Your task to perform on an android device: Search for "usb-a to usb-b" on newegg, select the first entry, add it to the cart, then select checkout. Image 0: 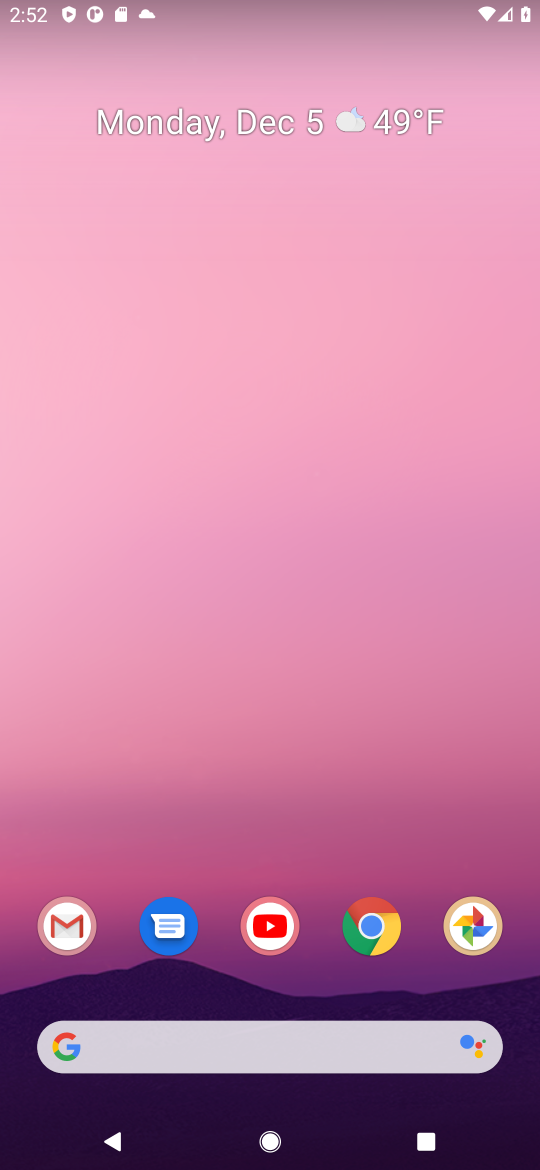
Step 0: click (358, 929)
Your task to perform on an android device: Search for "usb-a to usb-b" on newegg, select the first entry, add it to the cart, then select checkout. Image 1: 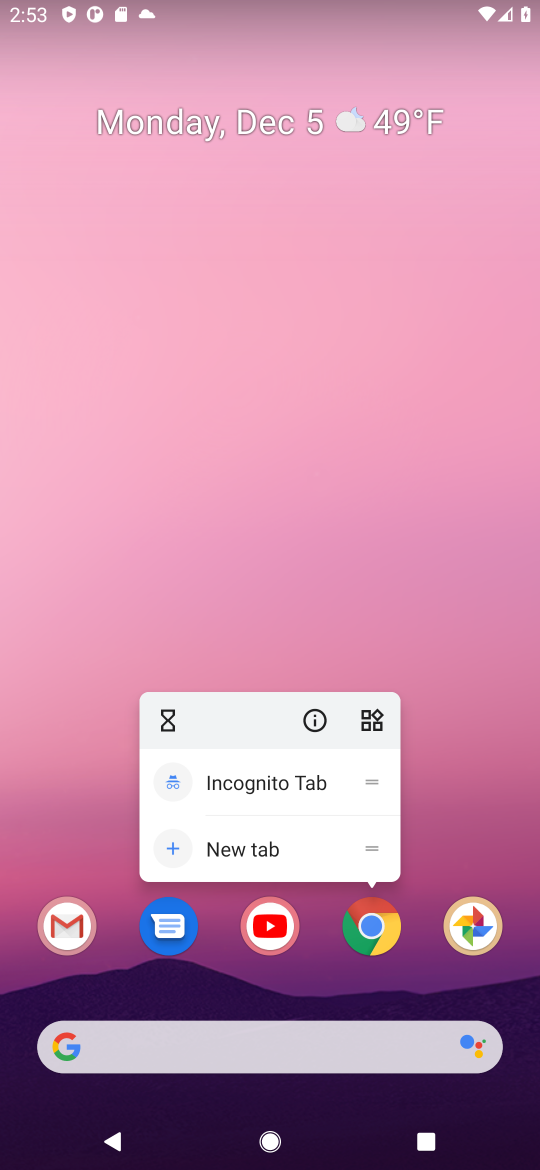
Step 1: click (390, 926)
Your task to perform on an android device: Search for "usb-a to usb-b" on newegg, select the first entry, add it to the cart, then select checkout. Image 2: 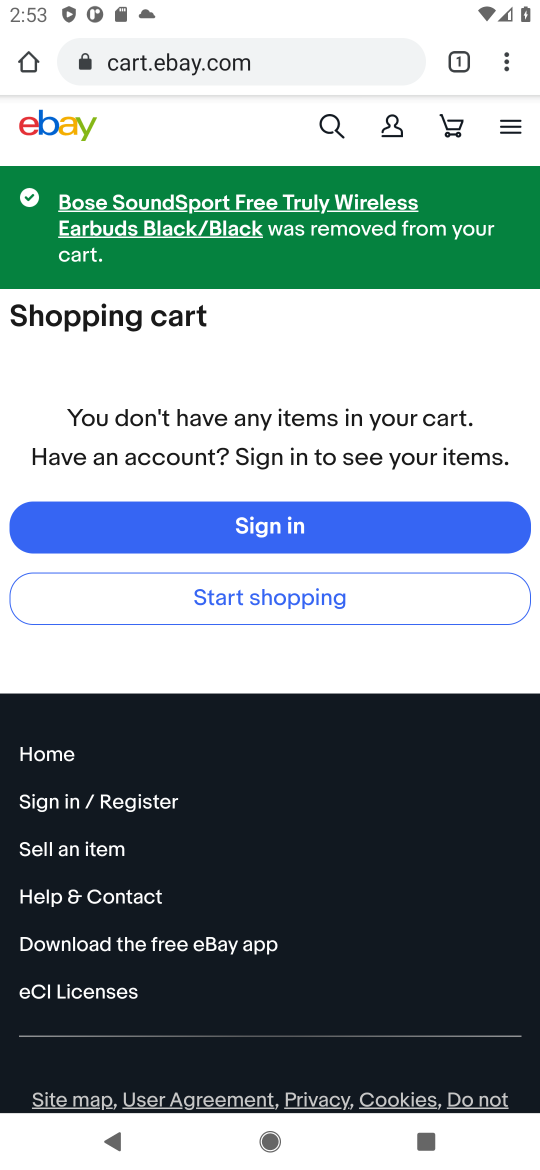
Step 2: click (300, 56)
Your task to perform on an android device: Search for "usb-a to usb-b" on newegg, select the first entry, add it to the cart, then select checkout. Image 3: 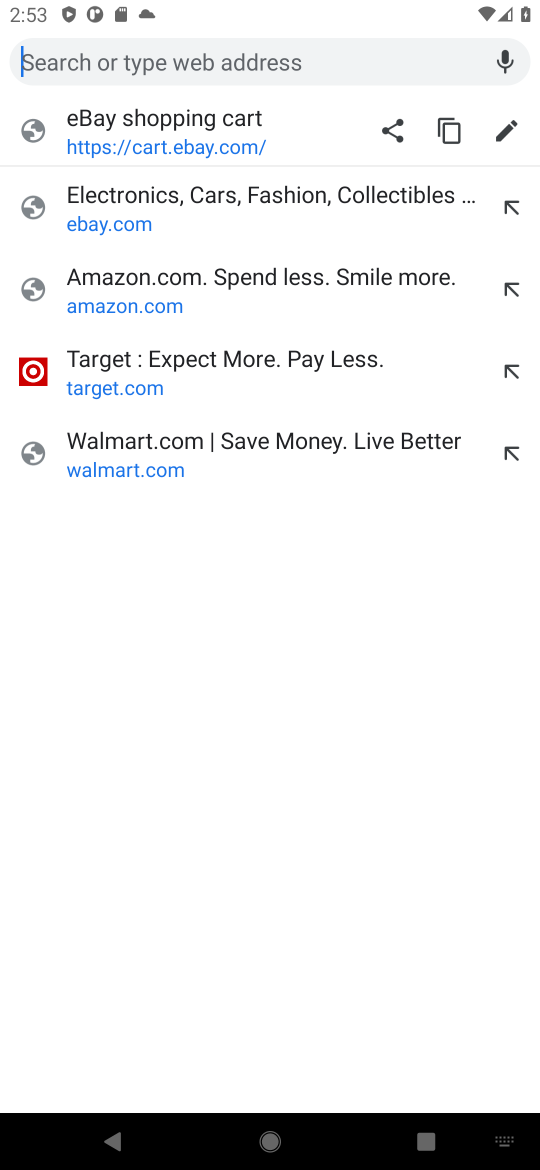
Step 3: type "newegg"
Your task to perform on an android device: Search for "usb-a to usb-b" on newegg, select the first entry, add it to the cart, then select checkout. Image 4: 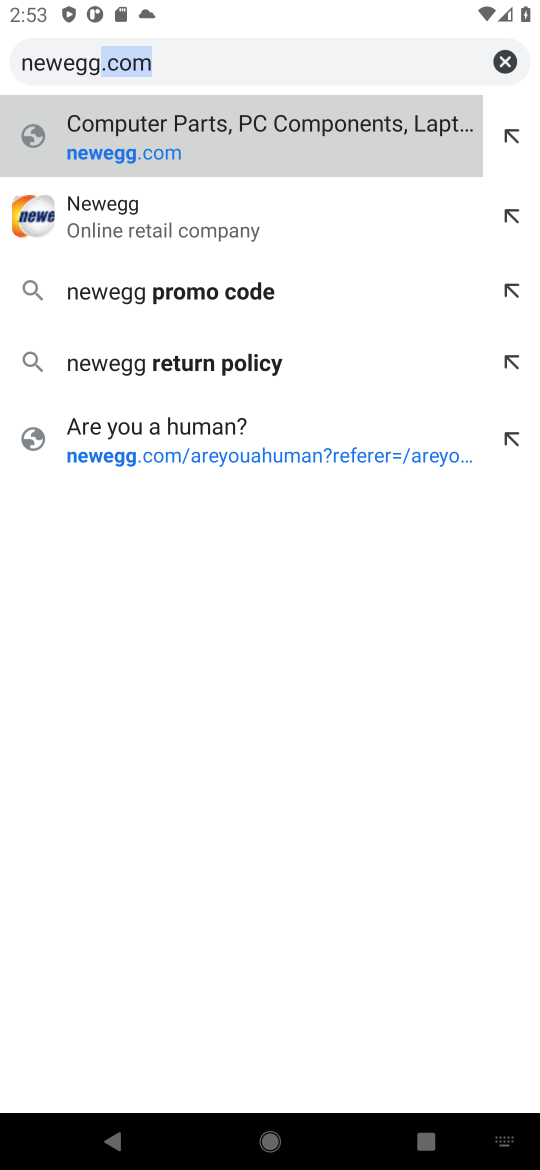
Step 4: press enter
Your task to perform on an android device: Search for "usb-a to usb-b" on newegg, select the first entry, add it to the cart, then select checkout. Image 5: 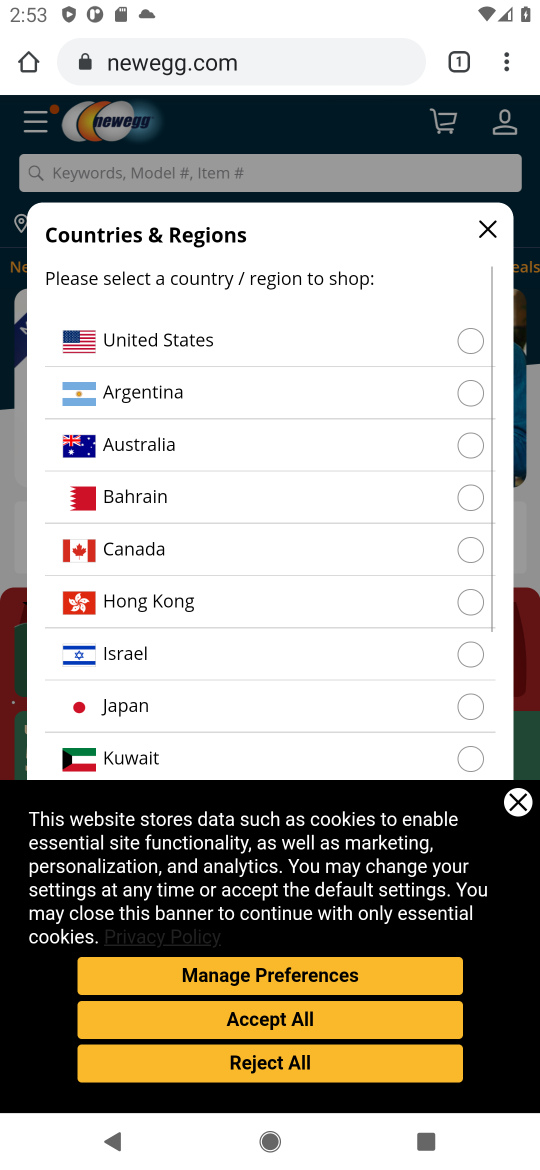
Step 5: click (479, 347)
Your task to perform on an android device: Search for "usb-a to usb-b" on newegg, select the first entry, add it to the cart, then select checkout. Image 6: 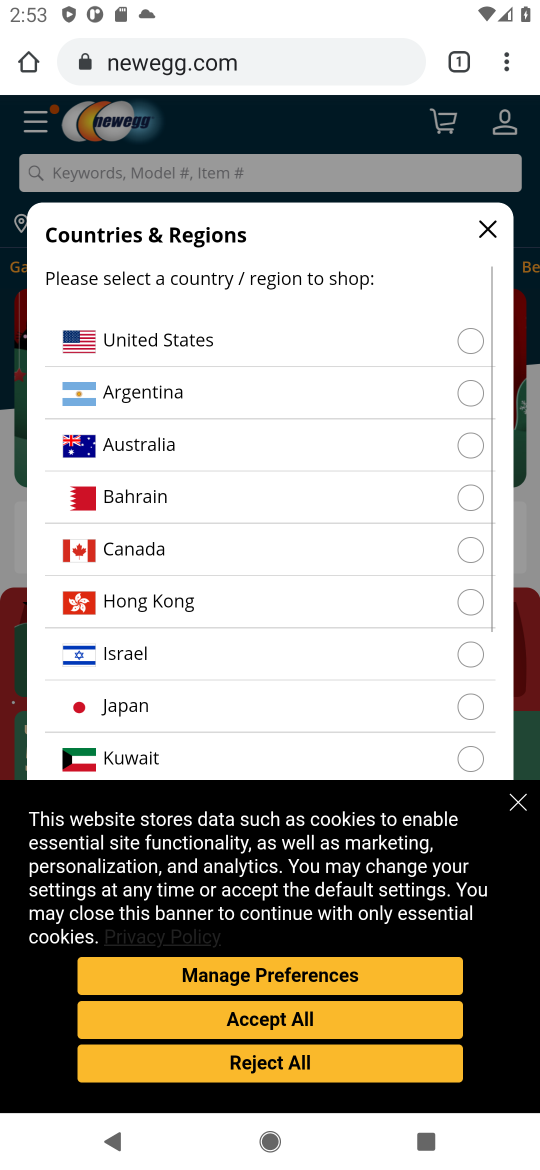
Step 6: click (481, 346)
Your task to perform on an android device: Search for "usb-a to usb-b" on newegg, select the first entry, add it to the cart, then select checkout. Image 7: 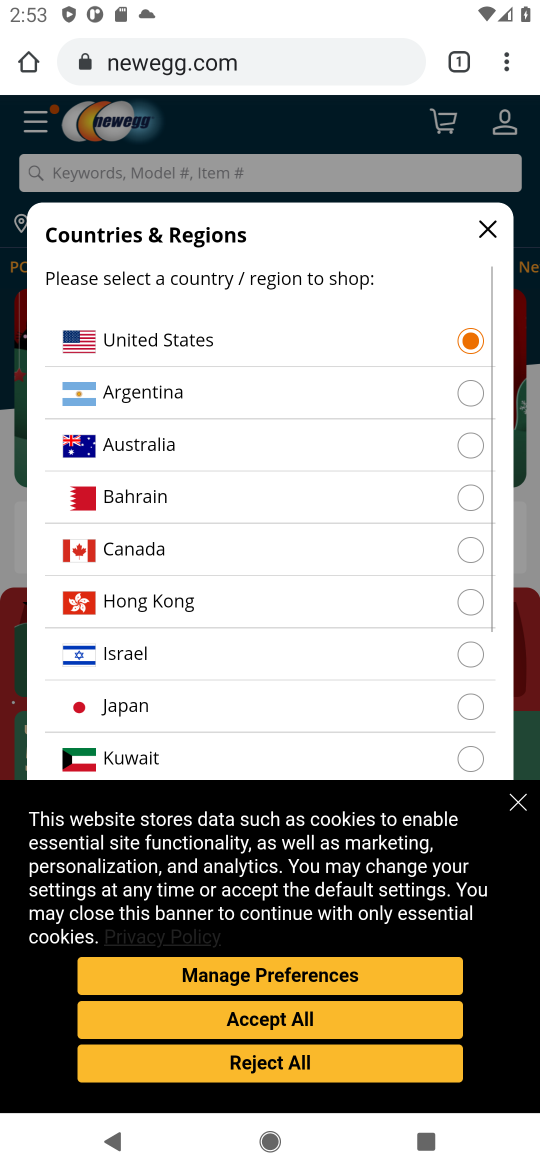
Step 7: click (516, 798)
Your task to perform on an android device: Search for "usb-a to usb-b" on newegg, select the first entry, add it to the cart, then select checkout. Image 8: 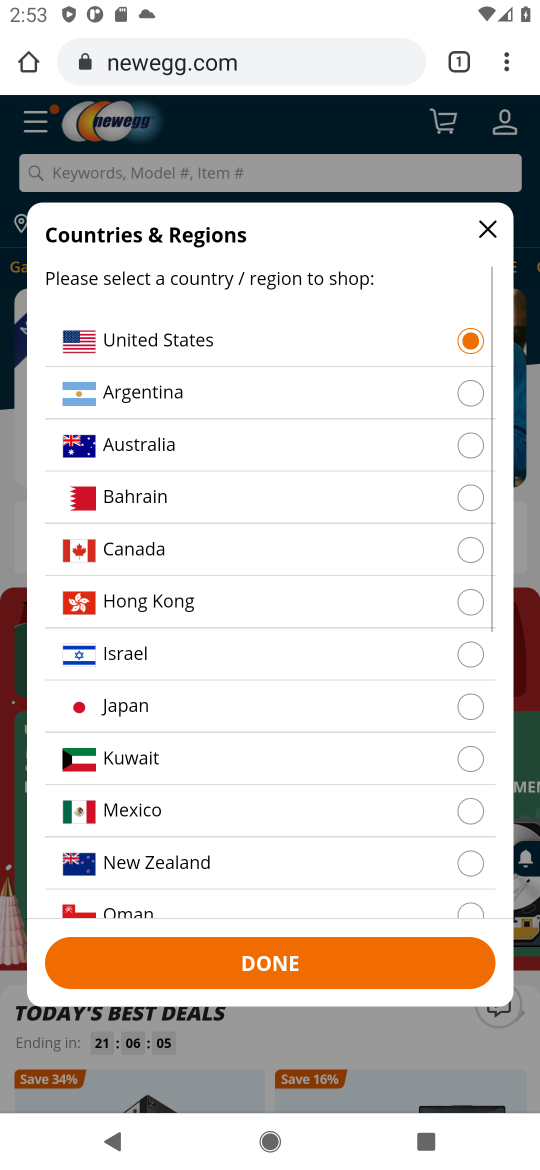
Step 8: click (321, 959)
Your task to perform on an android device: Search for "usb-a to usb-b" on newegg, select the first entry, add it to the cart, then select checkout. Image 9: 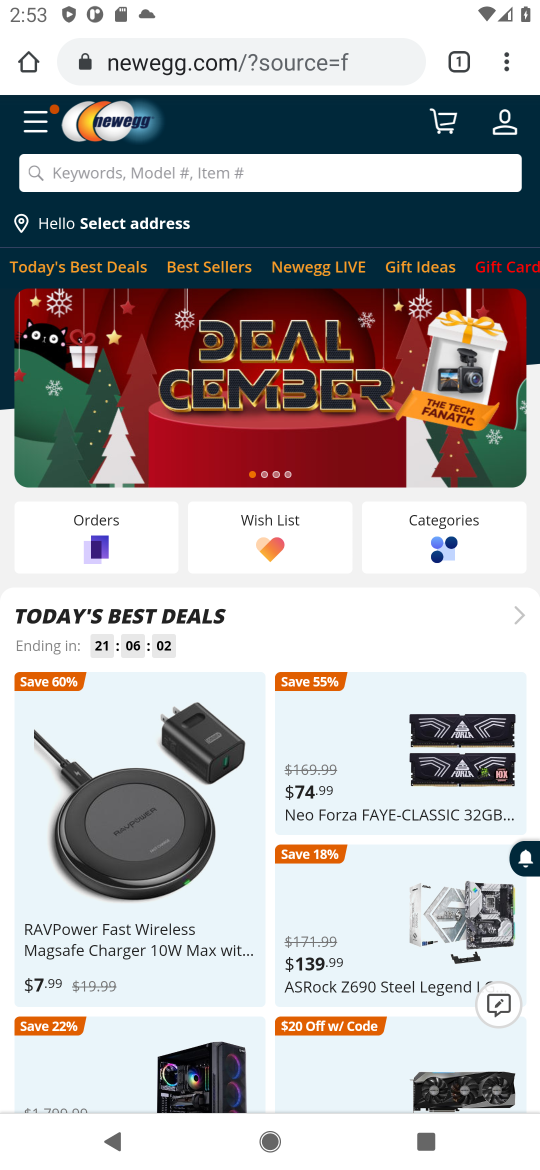
Step 9: click (303, 63)
Your task to perform on an android device: Search for "usb-a to usb-b" on newegg, select the first entry, add it to the cart, then select checkout. Image 10: 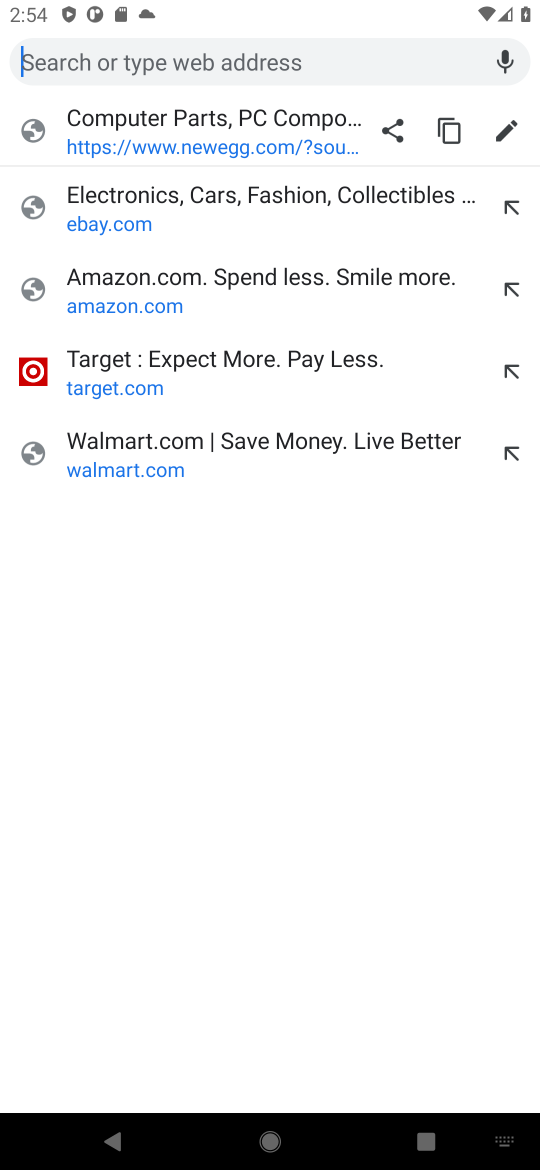
Step 10: press back button
Your task to perform on an android device: Search for "usb-a to usb-b" on newegg, select the first entry, add it to the cart, then select checkout. Image 11: 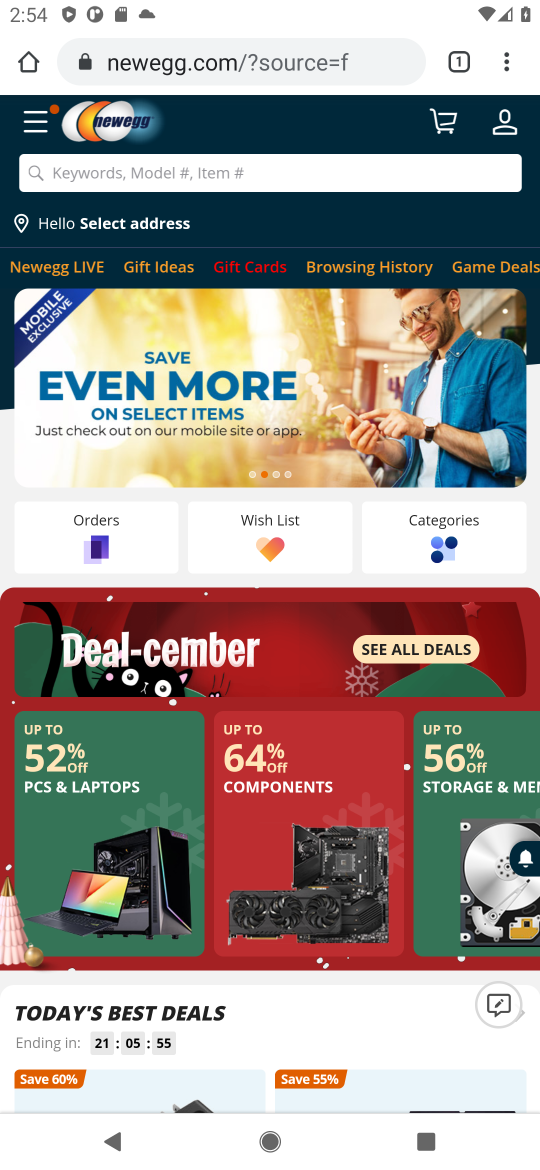
Step 11: click (429, 171)
Your task to perform on an android device: Search for "usb-a to usb-b" on newegg, select the first entry, add it to the cart, then select checkout. Image 12: 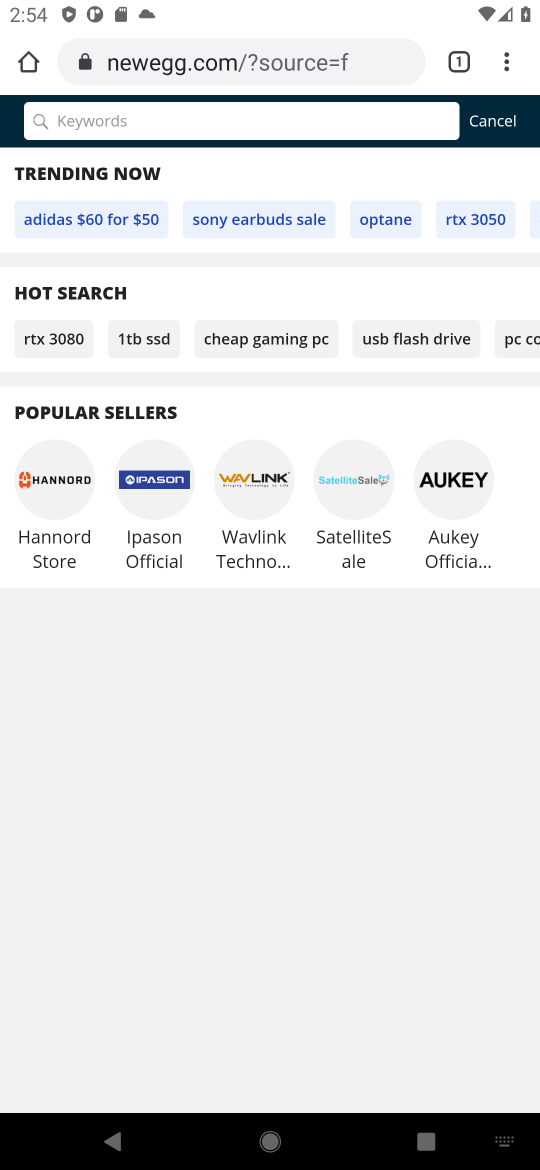
Step 12: type "usb-a to usb-b"
Your task to perform on an android device: Search for "usb-a to usb-b" on newegg, select the first entry, add it to the cart, then select checkout. Image 13: 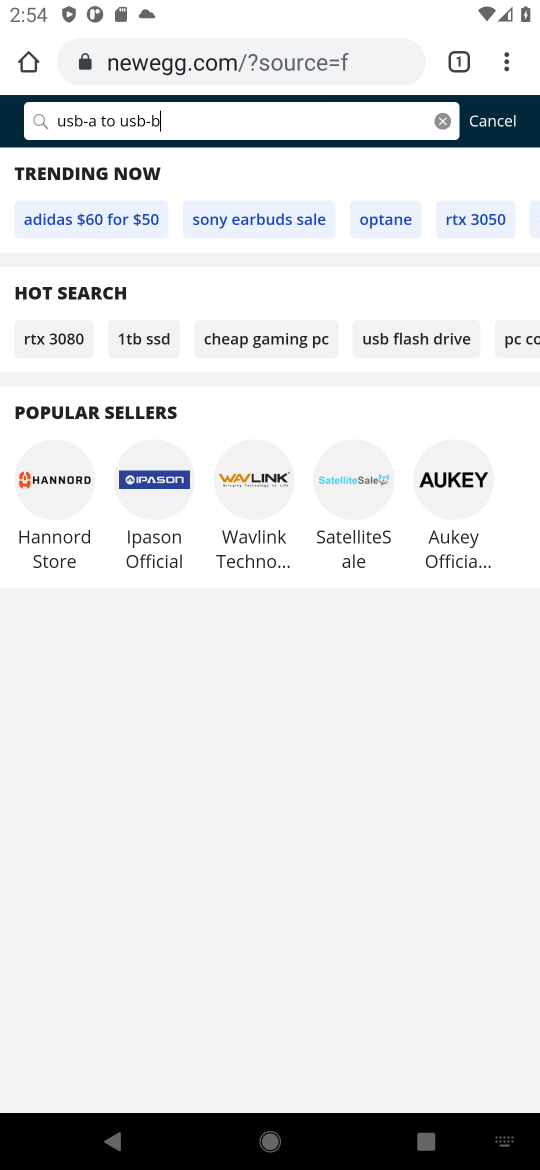
Step 13: press enter
Your task to perform on an android device: Search for "usb-a to usb-b" on newegg, select the first entry, add it to the cart, then select checkout. Image 14: 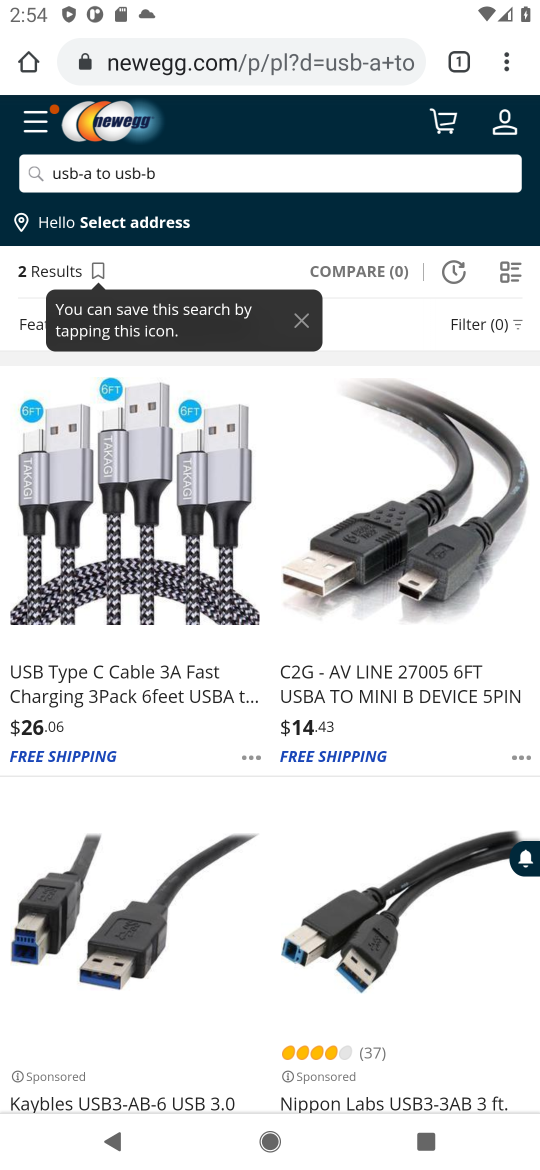
Step 14: drag from (202, 734) to (252, 412)
Your task to perform on an android device: Search for "usb-a to usb-b" on newegg, select the first entry, add it to the cart, then select checkout. Image 15: 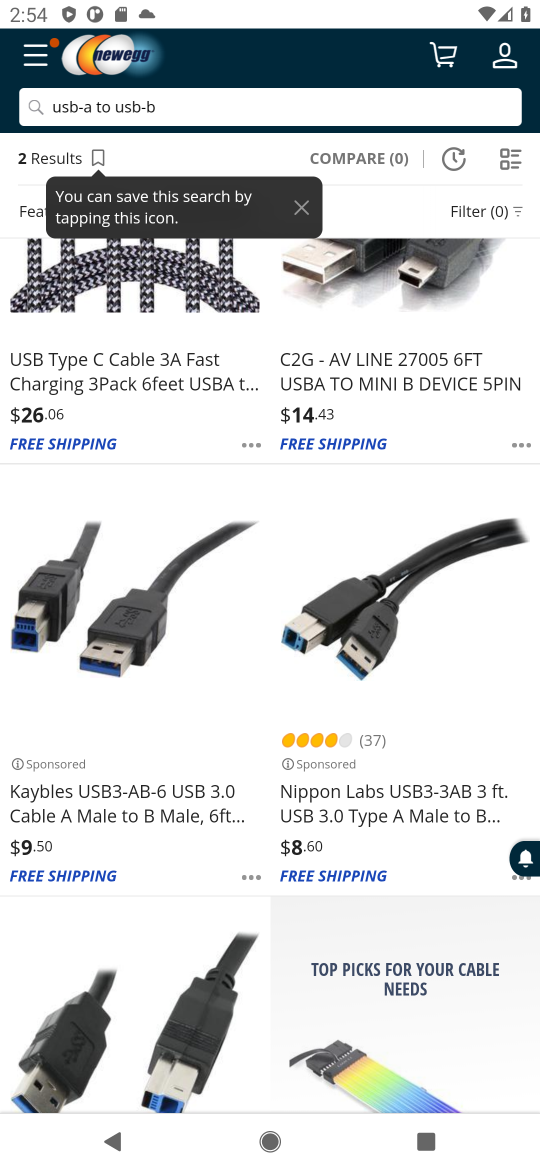
Step 15: drag from (192, 671) to (260, 376)
Your task to perform on an android device: Search for "usb-a to usb-b" on newegg, select the first entry, add it to the cart, then select checkout. Image 16: 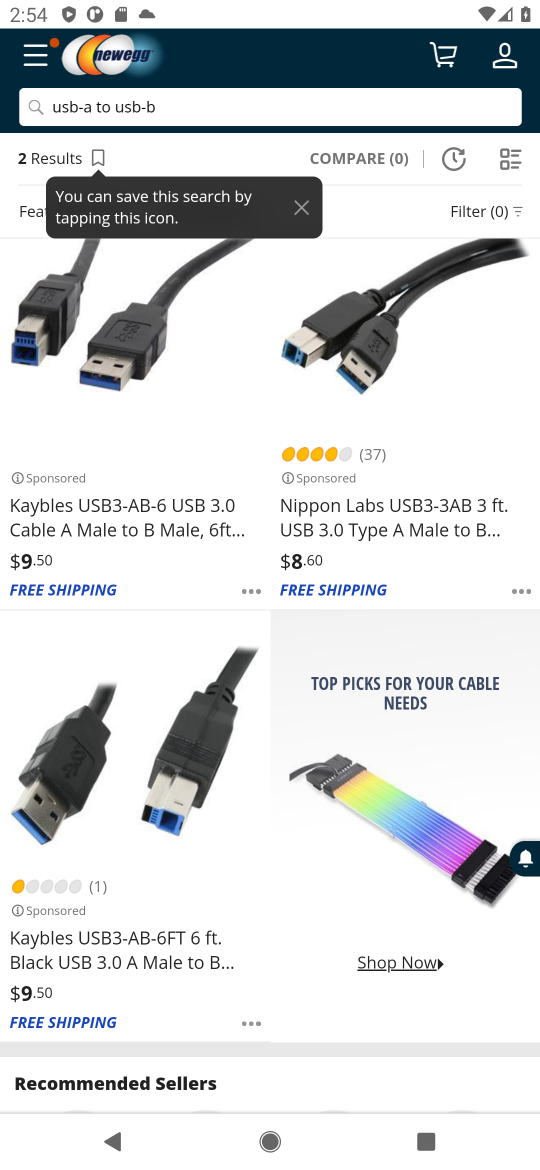
Step 16: drag from (294, 837) to (327, 478)
Your task to perform on an android device: Search for "usb-a to usb-b" on newegg, select the first entry, add it to the cart, then select checkout. Image 17: 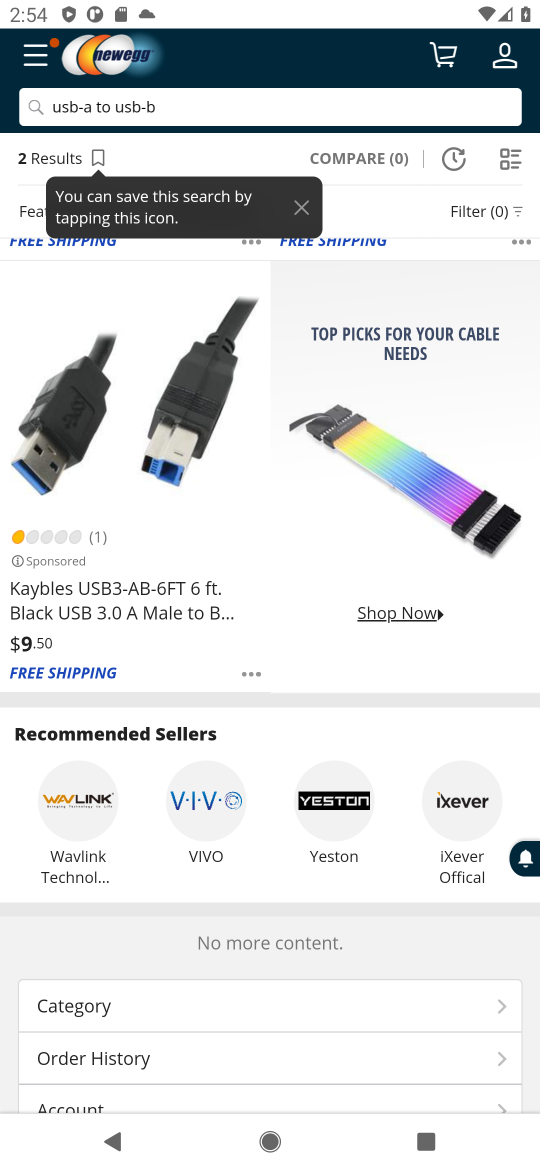
Step 17: drag from (188, 497) to (308, 1045)
Your task to perform on an android device: Search for "usb-a to usb-b" on newegg, select the first entry, add it to the cart, then select checkout. Image 18: 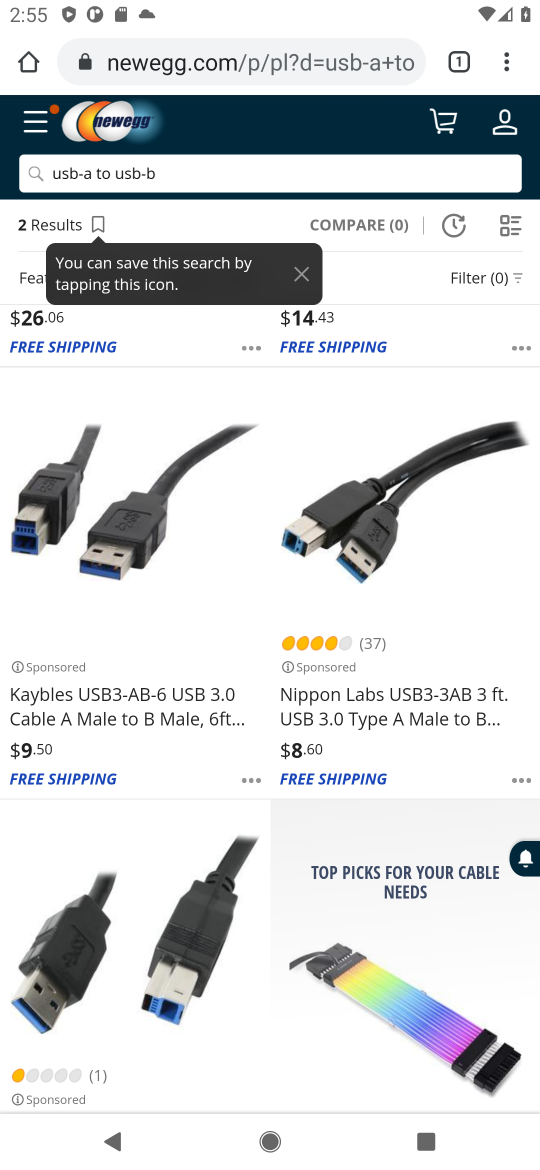
Step 18: drag from (388, 660) to (449, 301)
Your task to perform on an android device: Search for "usb-a to usb-b" on newegg, select the first entry, add it to the cart, then select checkout. Image 19: 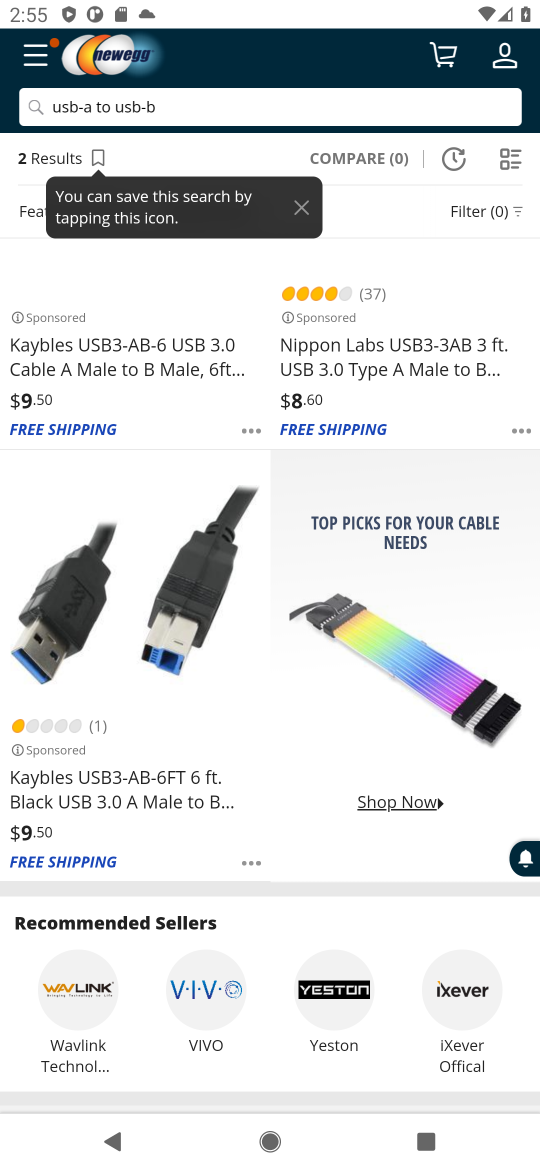
Step 19: drag from (247, 568) to (305, 277)
Your task to perform on an android device: Search for "usb-a to usb-b" on newegg, select the first entry, add it to the cart, then select checkout. Image 20: 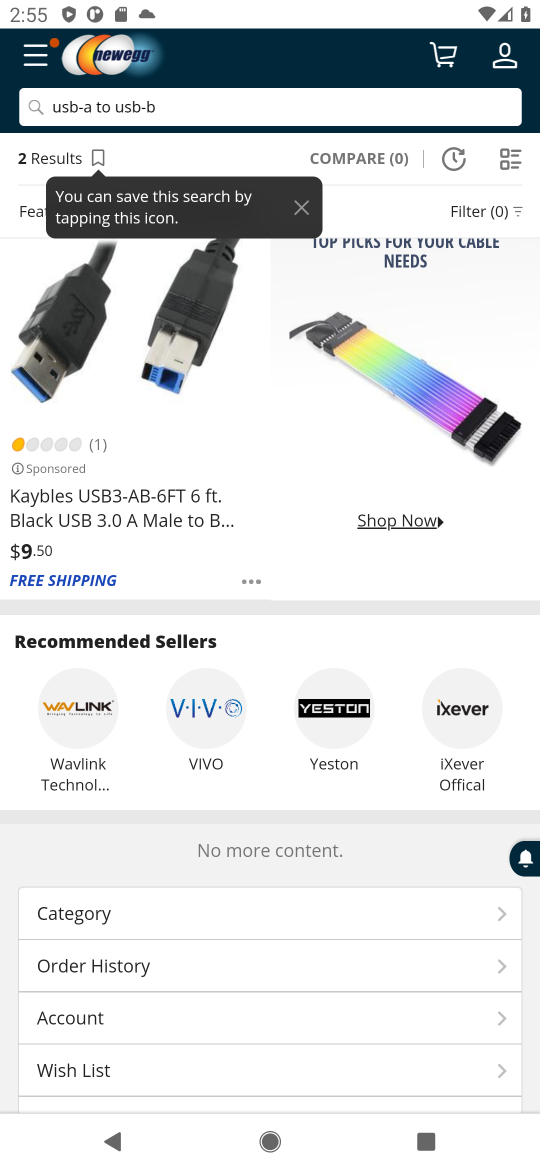
Step 20: drag from (318, 306) to (431, 1161)
Your task to perform on an android device: Search for "usb-a to usb-b" on newegg, select the first entry, add it to the cart, then select checkout. Image 21: 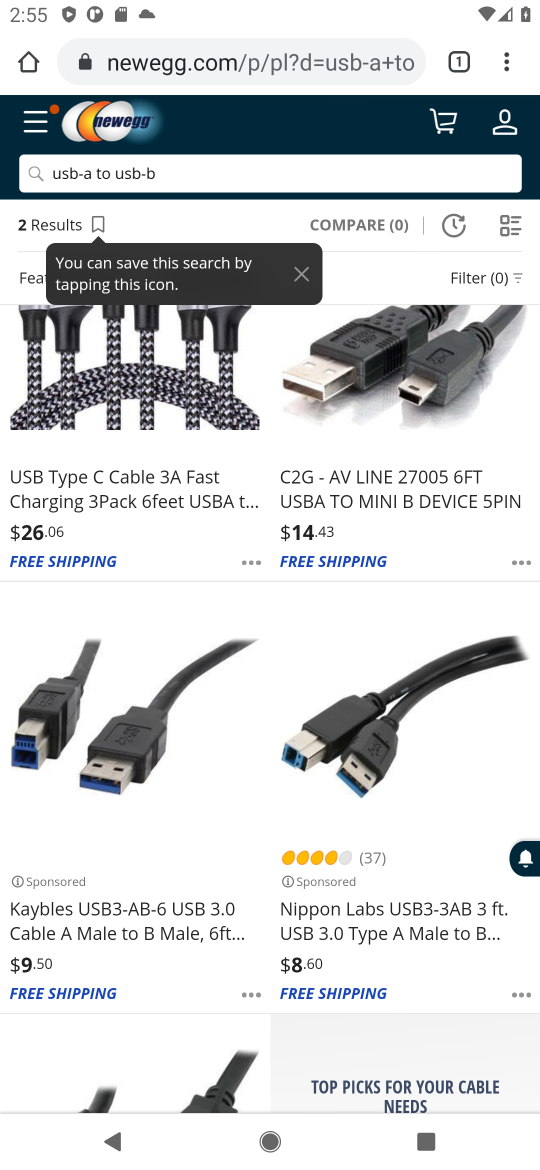
Step 21: drag from (392, 395) to (539, 840)
Your task to perform on an android device: Search for "usb-a to usb-b" on newegg, select the first entry, add it to the cart, then select checkout. Image 22: 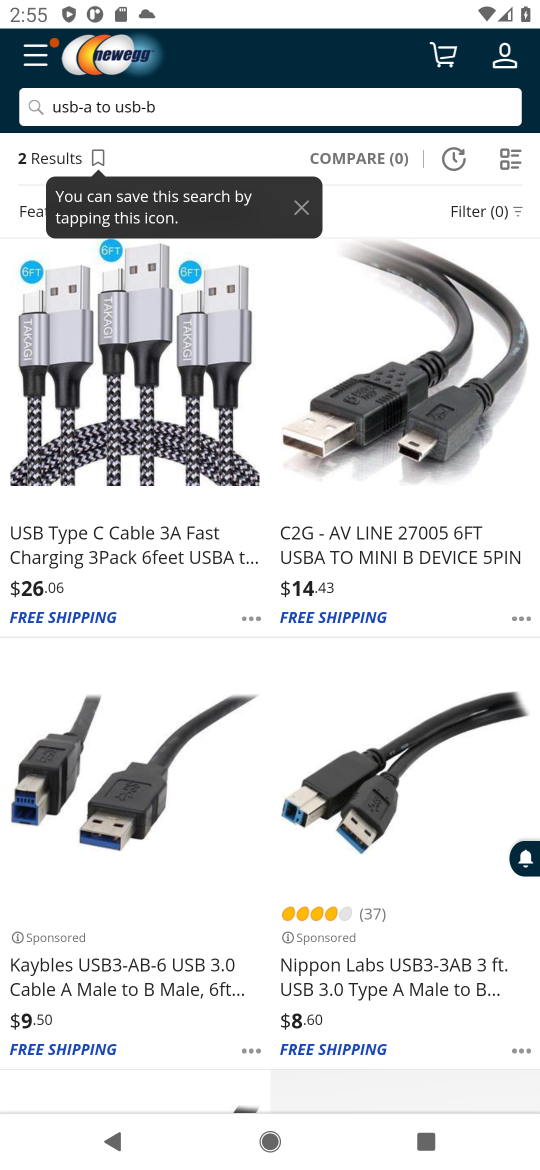
Step 22: click (117, 794)
Your task to perform on an android device: Search for "usb-a to usb-b" on newegg, select the first entry, add it to the cart, then select checkout. Image 23: 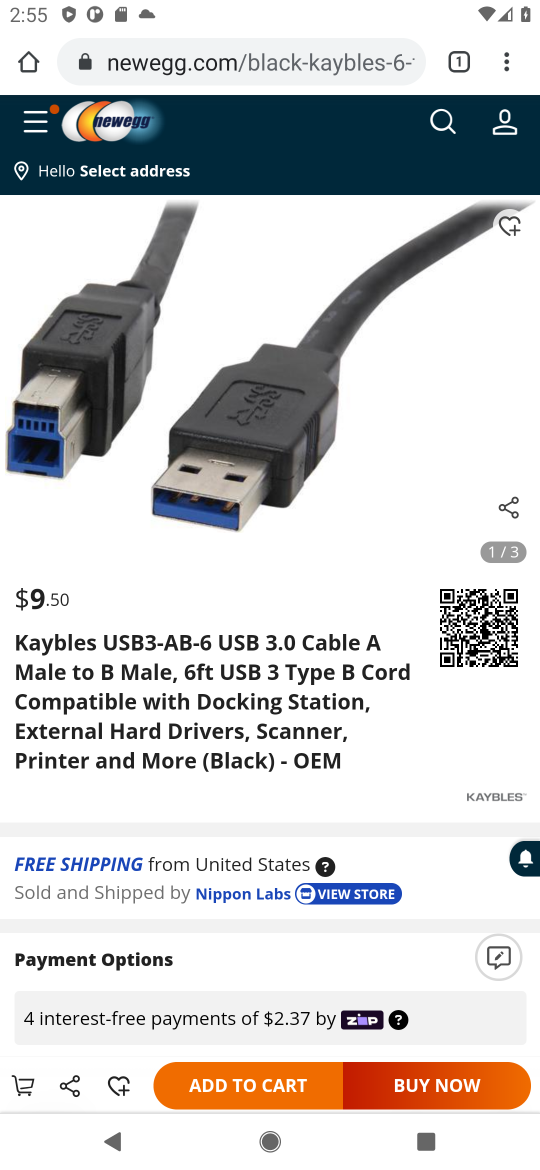
Step 23: click (257, 1087)
Your task to perform on an android device: Search for "usb-a to usb-b" on newegg, select the first entry, add it to the cart, then select checkout. Image 24: 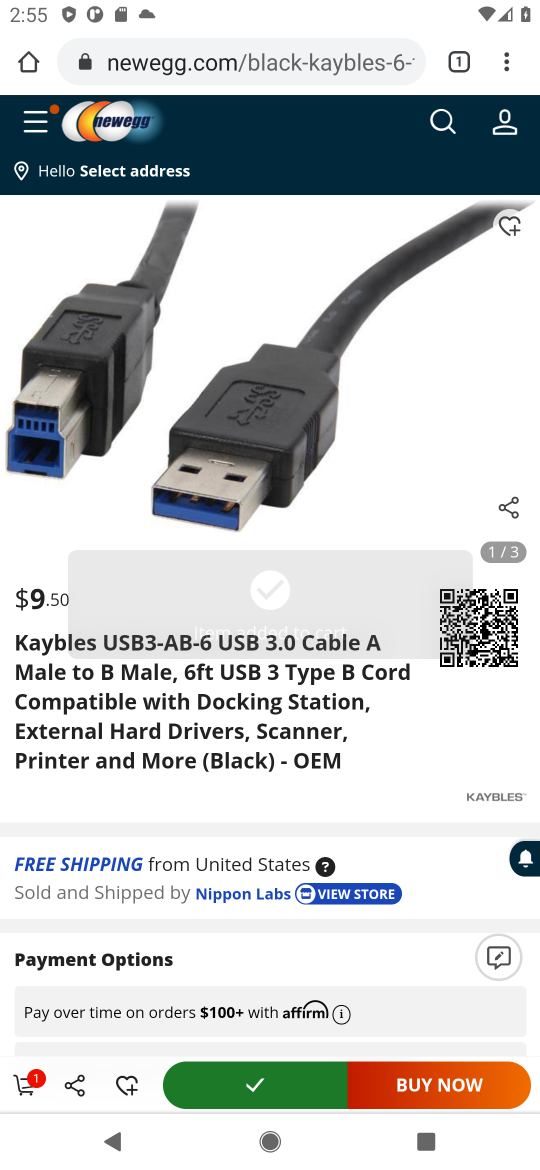
Step 24: click (20, 1093)
Your task to perform on an android device: Search for "usb-a to usb-b" on newegg, select the first entry, add it to the cart, then select checkout. Image 25: 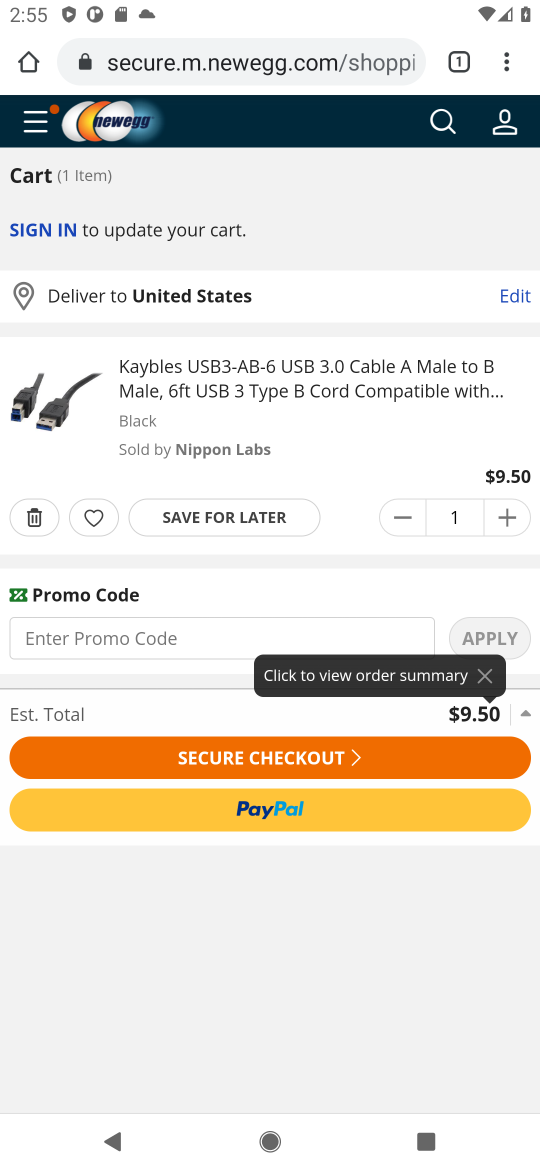
Step 25: click (311, 753)
Your task to perform on an android device: Search for "usb-a to usb-b" on newegg, select the first entry, add it to the cart, then select checkout. Image 26: 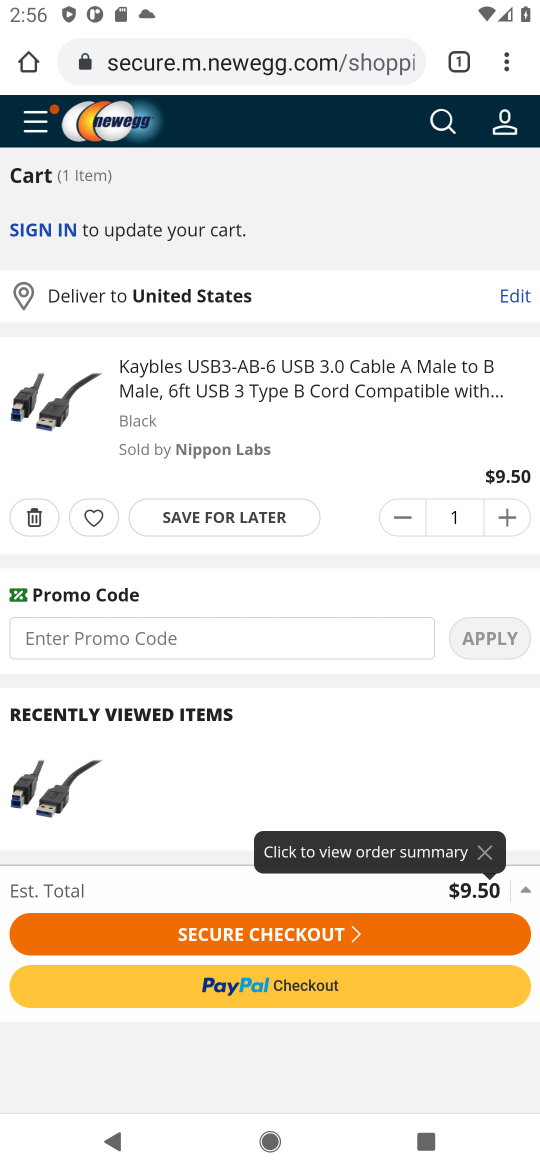
Step 26: click (281, 930)
Your task to perform on an android device: Search for "usb-a to usb-b" on newegg, select the first entry, add it to the cart, then select checkout. Image 27: 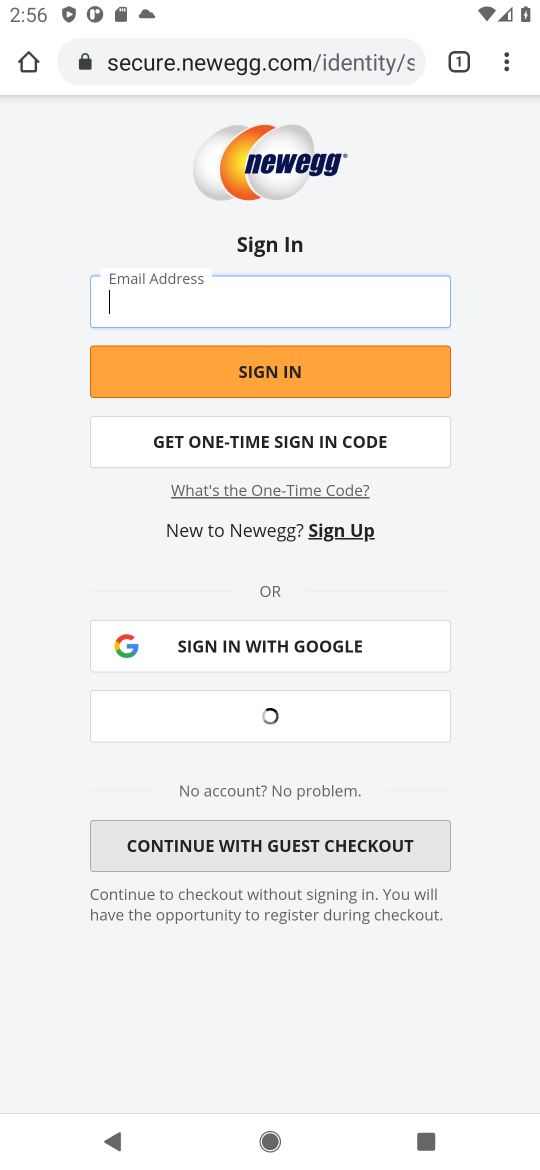
Step 27: task complete